Your task to perform on an android device: Go to Google maps Image 0: 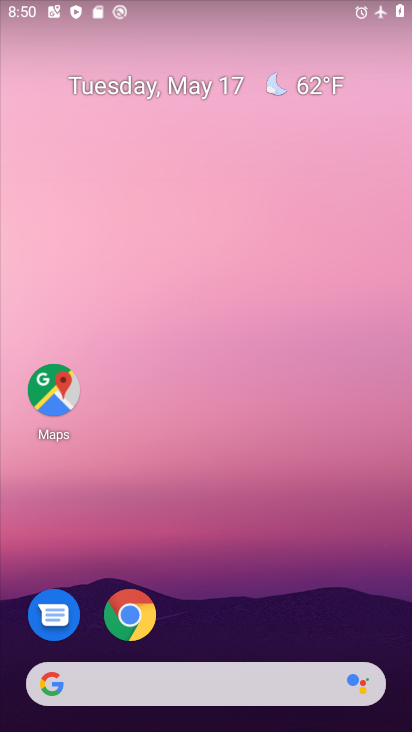
Step 0: click (61, 388)
Your task to perform on an android device: Go to Google maps Image 1: 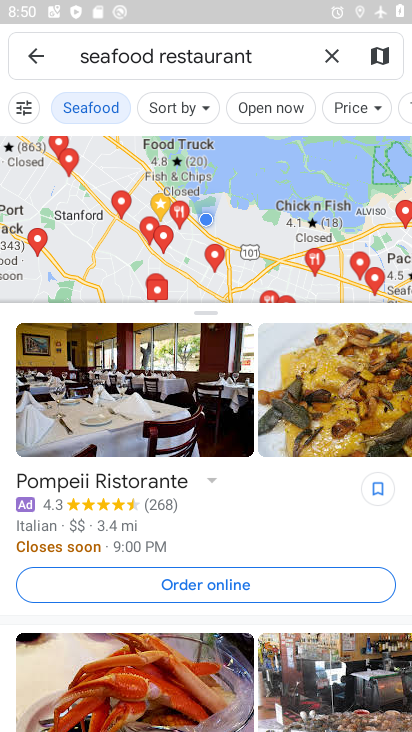
Step 1: click (32, 50)
Your task to perform on an android device: Go to Google maps Image 2: 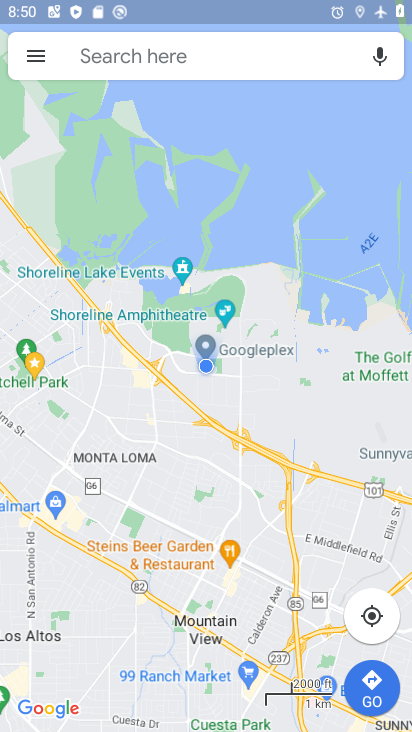
Step 2: task complete